Your task to perform on an android device: Do I have any events this weekend? Image 0: 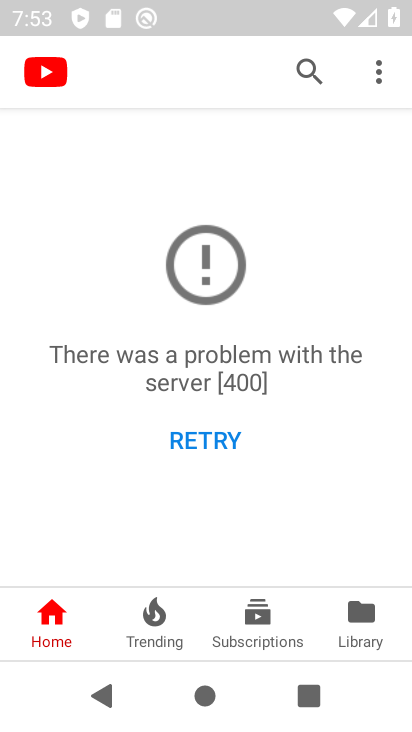
Step 0: click (200, 429)
Your task to perform on an android device: Do I have any events this weekend? Image 1: 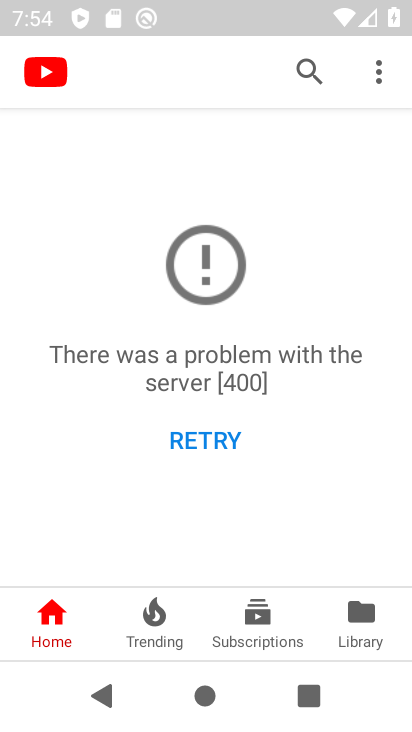
Step 1: click (331, 303)
Your task to perform on an android device: Do I have any events this weekend? Image 2: 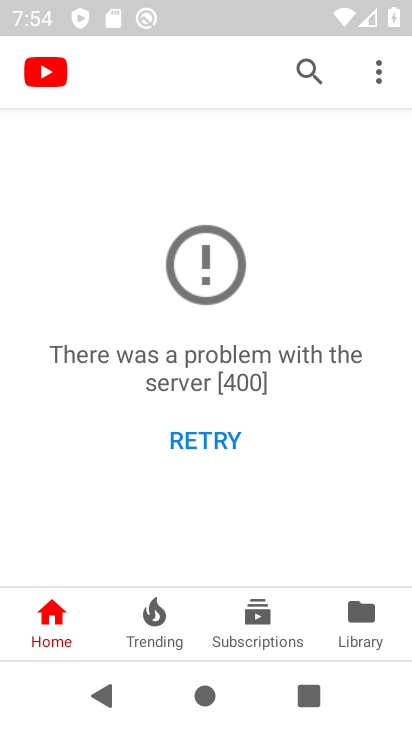
Step 2: click (182, 436)
Your task to perform on an android device: Do I have any events this weekend? Image 3: 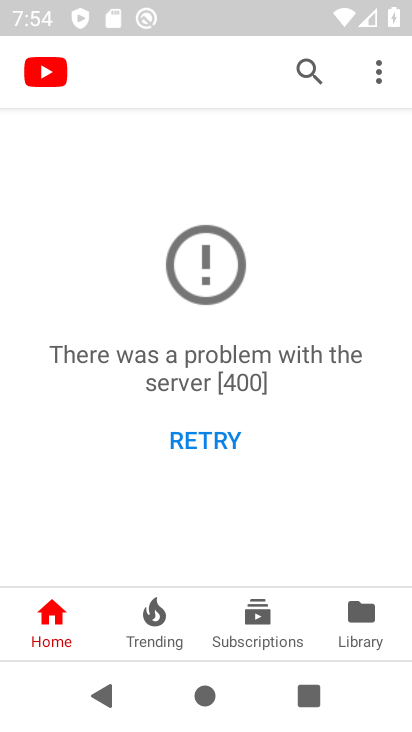
Step 3: click (357, 302)
Your task to perform on an android device: Do I have any events this weekend? Image 4: 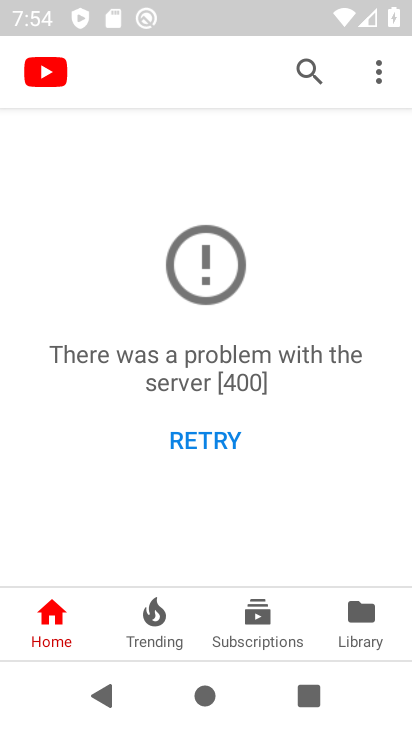
Step 4: drag from (265, 510) to (323, 292)
Your task to perform on an android device: Do I have any events this weekend? Image 5: 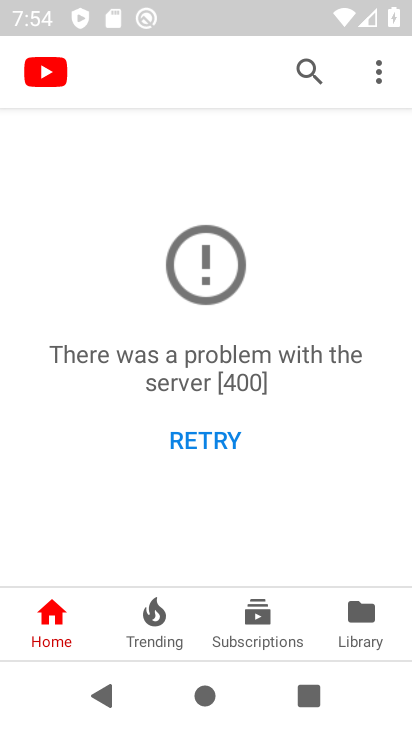
Step 5: press home button
Your task to perform on an android device: Do I have any events this weekend? Image 6: 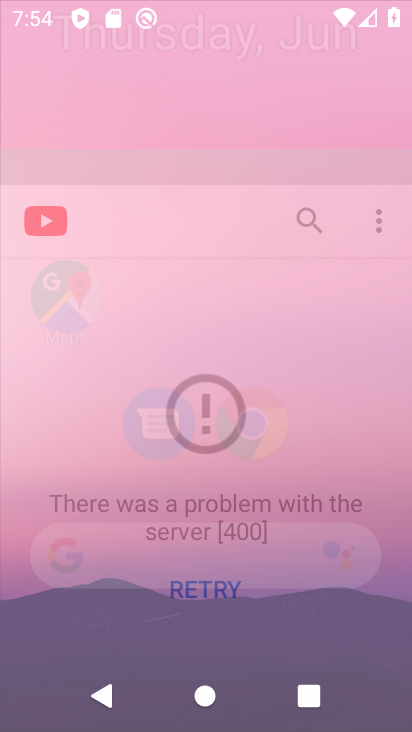
Step 6: drag from (87, 516) to (133, 382)
Your task to perform on an android device: Do I have any events this weekend? Image 7: 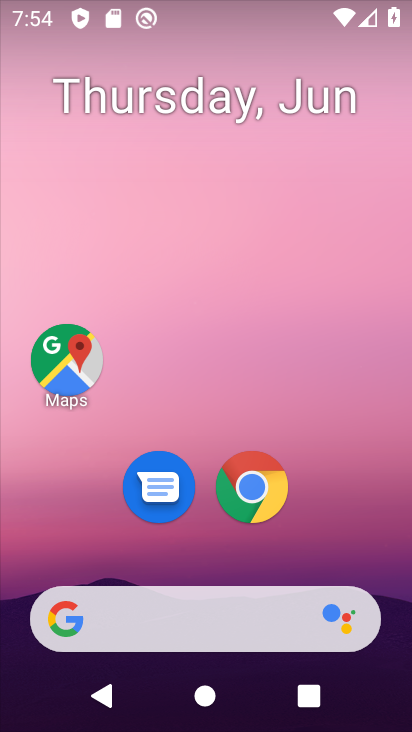
Step 7: drag from (181, 552) to (245, 160)
Your task to perform on an android device: Do I have any events this weekend? Image 8: 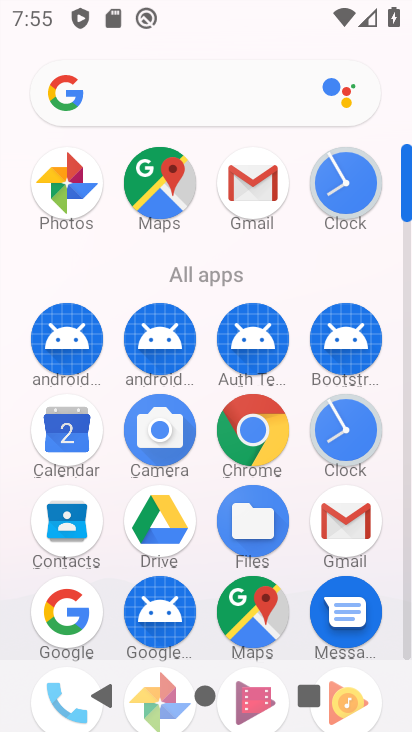
Step 8: drag from (206, 480) to (228, 180)
Your task to perform on an android device: Do I have any events this weekend? Image 9: 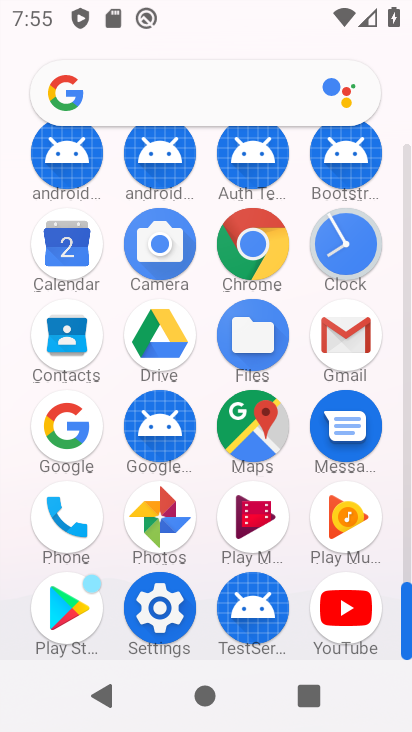
Step 9: click (64, 233)
Your task to perform on an android device: Do I have any events this weekend? Image 10: 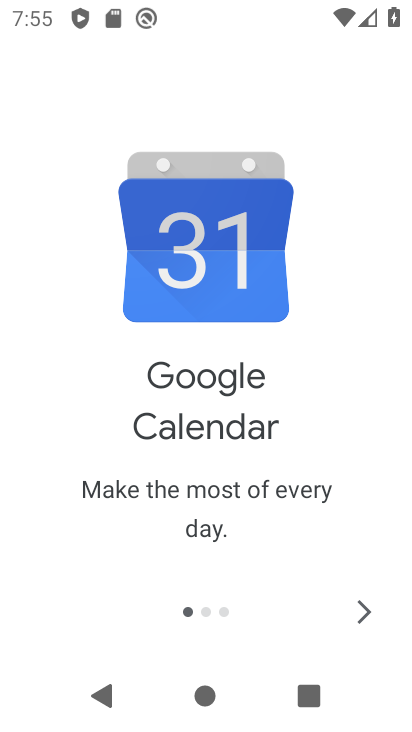
Step 10: click (353, 621)
Your task to perform on an android device: Do I have any events this weekend? Image 11: 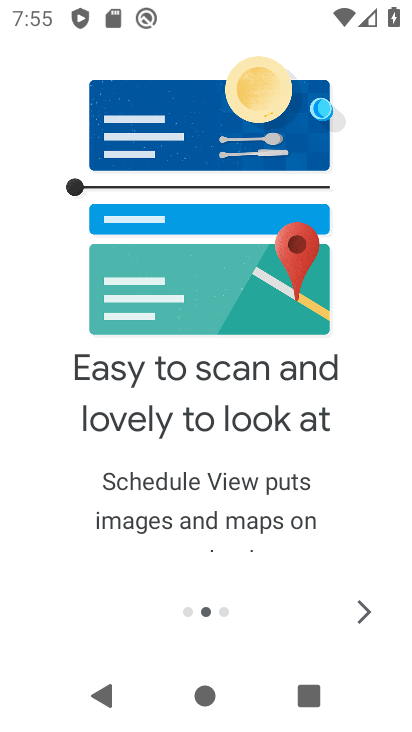
Step 11: click (349, 615)
Your task to perform on an android device: Do I have any events this weekend? Image 12: 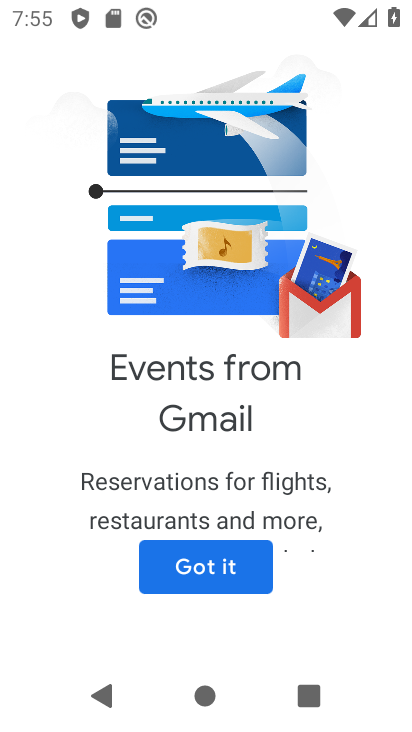
Step 12: click (349, 607)
Your task to perform on an android device: Do I have any events this weekend? Image 13: 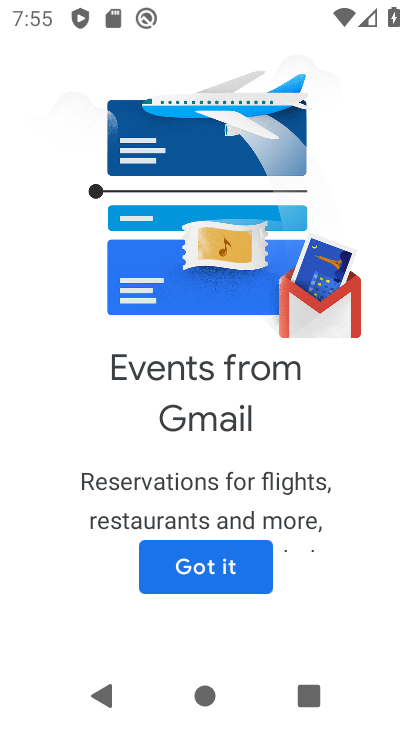
Step 13: click (183, 530)
Your task to perform on an android device: Do I have any events this weekend? Image 14: 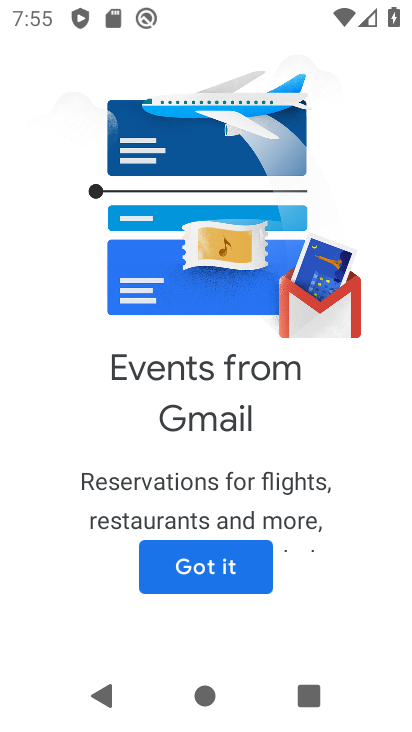
Step 14: click (185, 536)
Your task to perform on an android device: Do I have any events this weekend? Image 15: 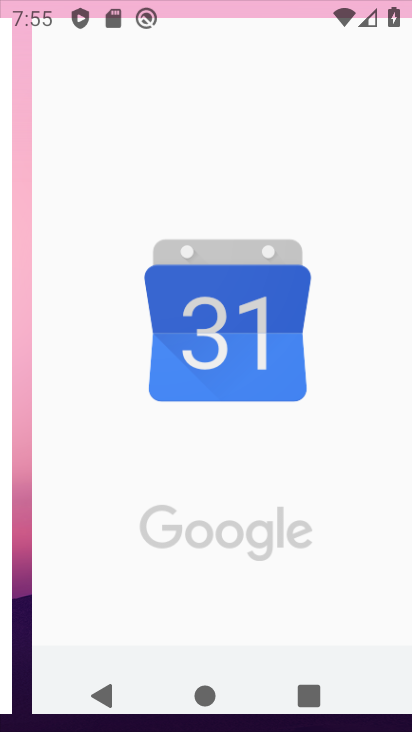
Step 15: click (195, 550)
Your task to perform on an android device: Do I have any events this weekend? Image 16: 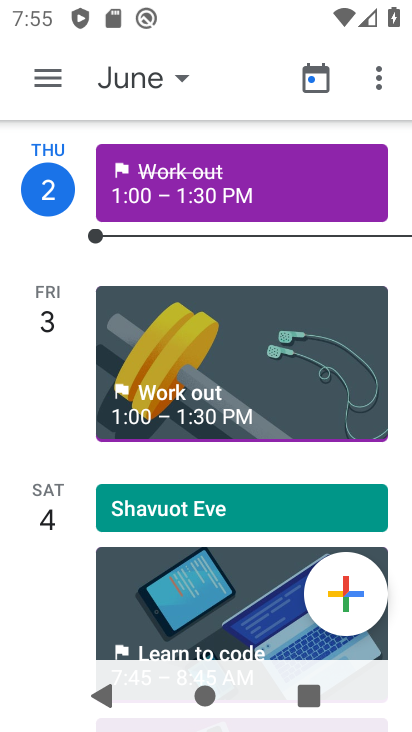
Step 16: drag from (188, 532) to (240, 274)
Your task to perform on an android device: Do I have any events this weekend? Image 17: 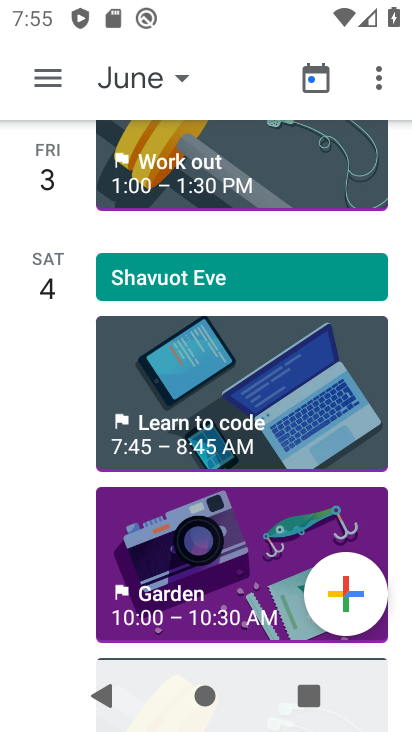
Step 17: drag from (242, 482) to (332, 90)
Your task to perform on an android device: Do I have any events this weekend? Image 18: 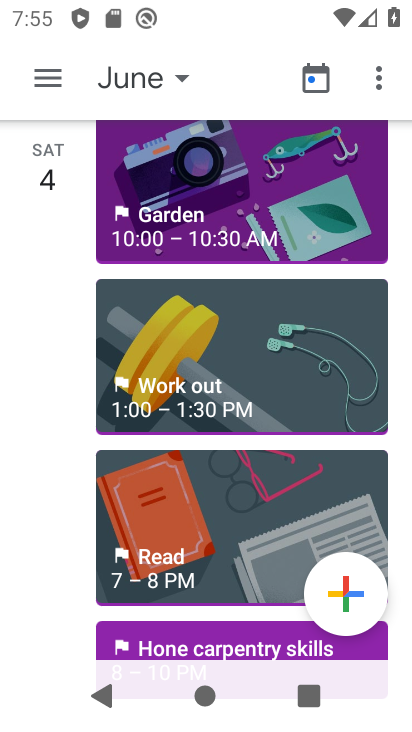
Step 18: drag from (199, 475) to (308, 185)
Your task to perform on an android device: Do I have any events this weekend? Image 19: 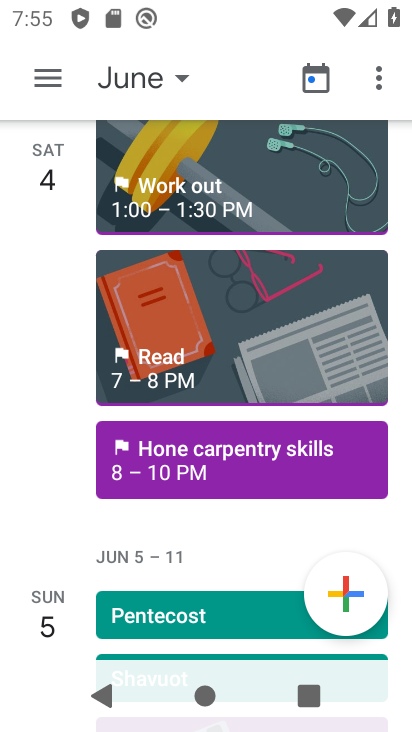
Step 19: drag from (244, 505) to (343, 194)
Your task to perform on an android device: Do I have any events this weekend? Image 20: 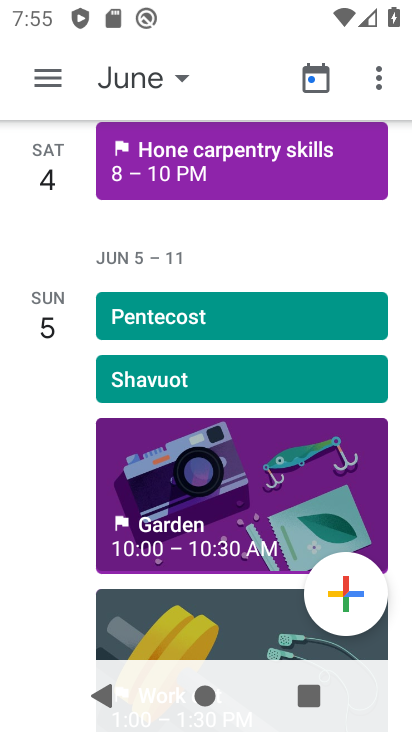
Step 20: drag from (241, 506) to (296, 285)
Your task to perform on an android device: Do I have any events this weekend? Image 21: 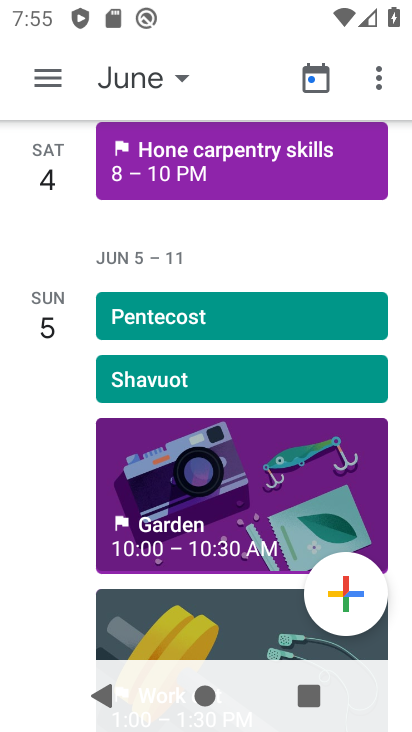
Step 21: click (156, 67)
Your task to perform on an android device: Do I have any events this weekend? Image 22: 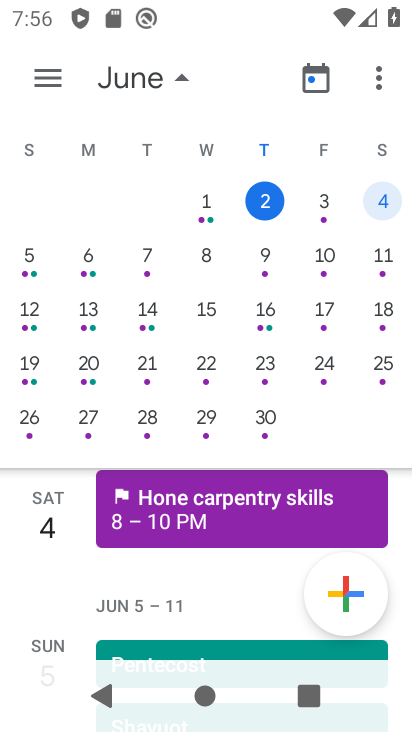
Step 22: click (261, 199)
Your task to perform on an android device: Do I have any events this weekend? Image 23: 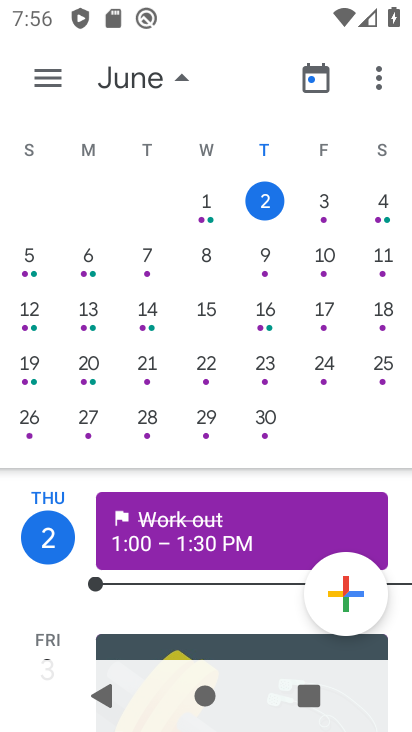
Step 23: task complete